Your task to perform on an android device: toggle sleep mode Image 0: 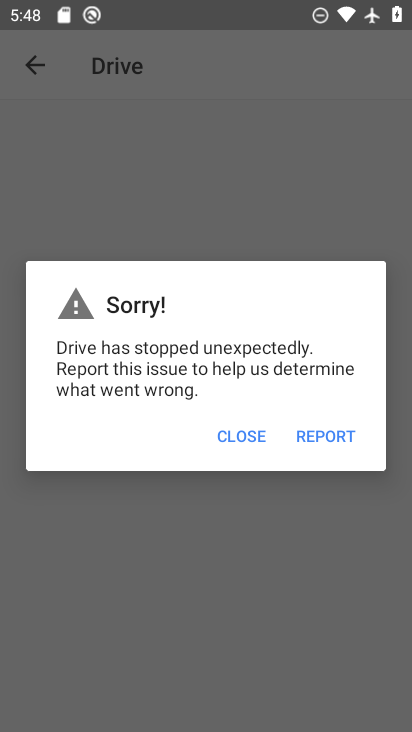
Step 0: press home button
Your task to perform on an android device: toggle sleep mode Image 1: 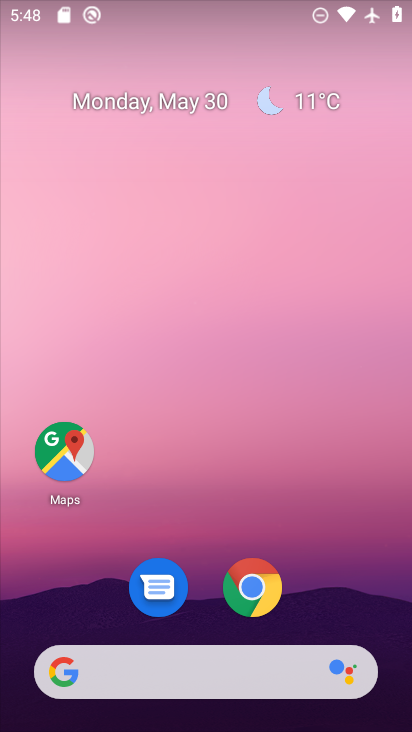
Step 1: click (206, 47)
Your task to perform on an android device: toggle sleep mode Image 2: 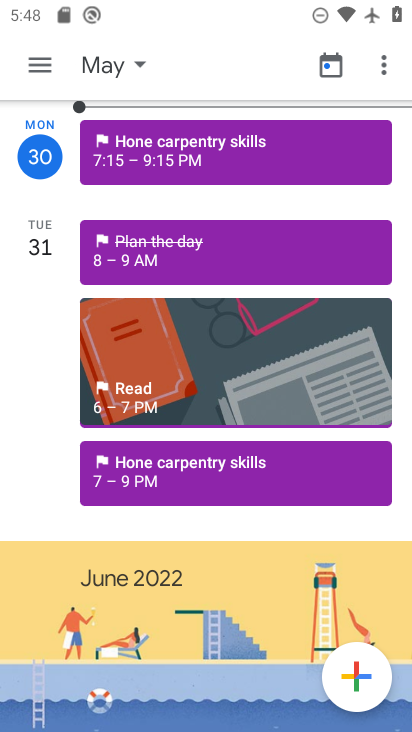
Step 2: press back button
Your task to perform on an android device: toggle sleep mode Image 3: 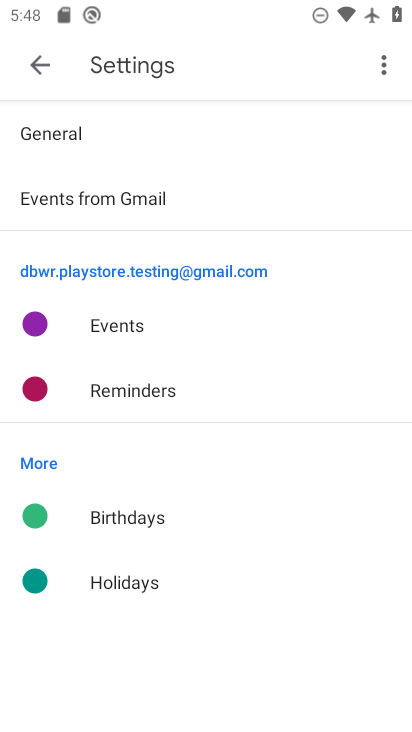
Step 3: click (46, 64)
Your task to perform on an android device: toggle sleep mode Image 4: 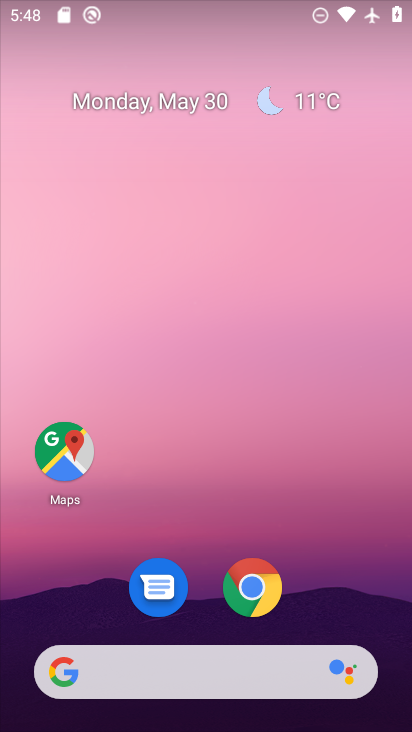
Step 4: drag from (361, 592) to (243, 0)
Your task to perform on an android device: toggle sleep mode Image 5: 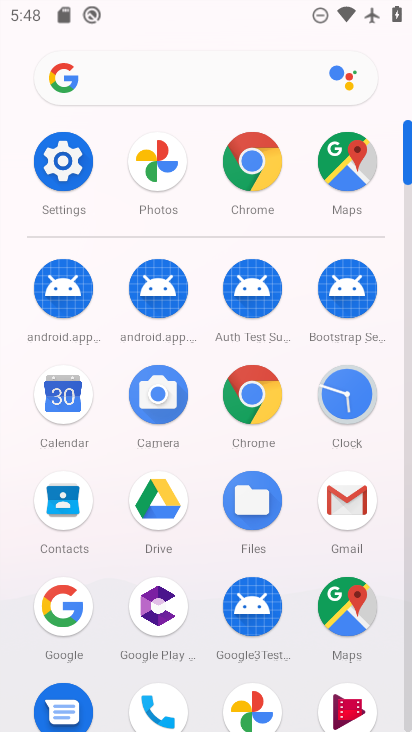
Step 5: click (55, 160)
Your task to perform on an android device: toggle sleep mode Image 6: 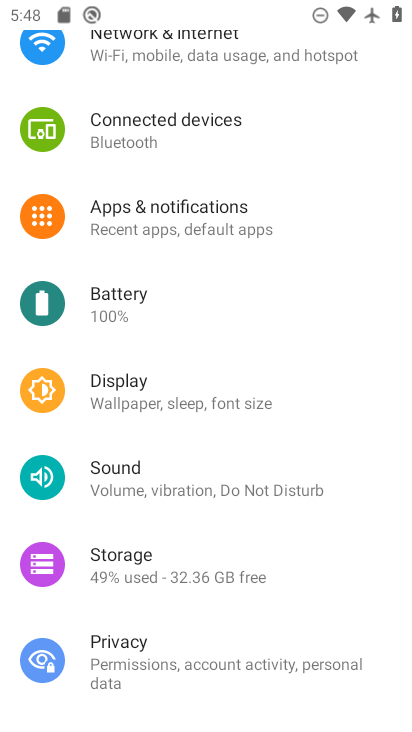
Step 6: drag from (332, 142) to (289, 558)
Your task to perform on an android device: toggle sleep mode Image 7: 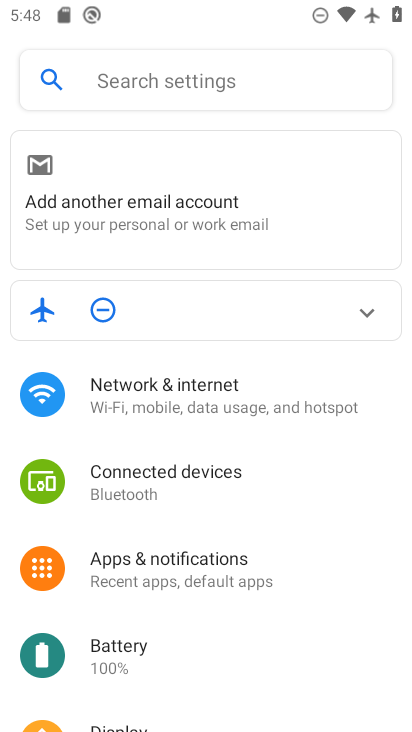
Step 7: drag from (289, 558) to (310, 156)
Your task to perform on an android device: toggle sleep mode Image 8: 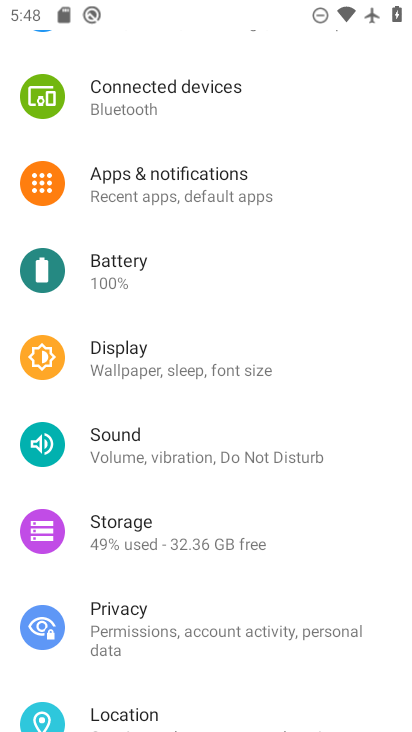
Step 8: click (225, 369)
Your task to perform on an android device: toggle sleep mode Image 9: 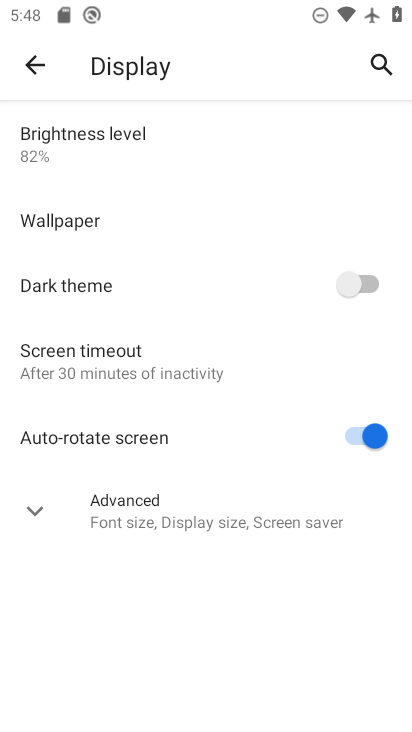
Step 9: click (73, 486)
Your task to perform on an android device: toggle sleep mode Image 10: 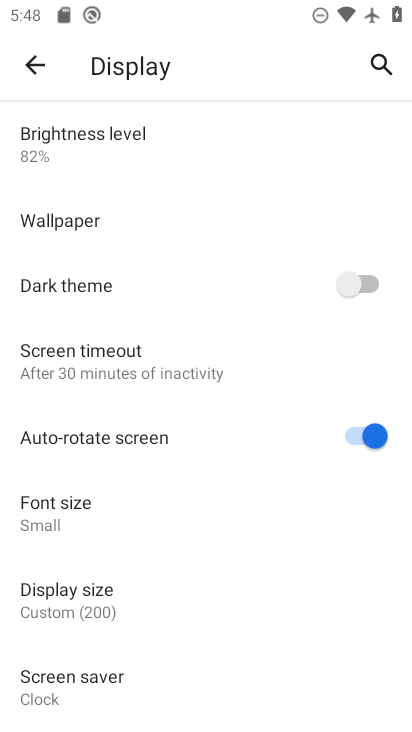
Step 10: task complete